Your task to perform on an android device: turn on the 12-hour format for clock Image 0: 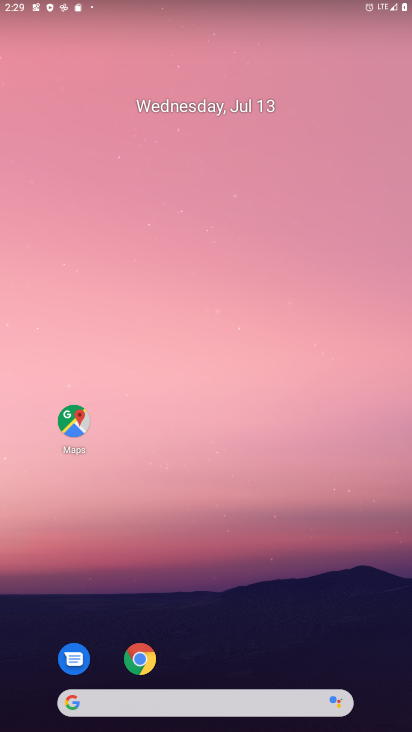
Step 0: drag from (221, 708) to (218, 200)
Your task to perform on an android device: turn on the 12-hour format for clock Image 1: 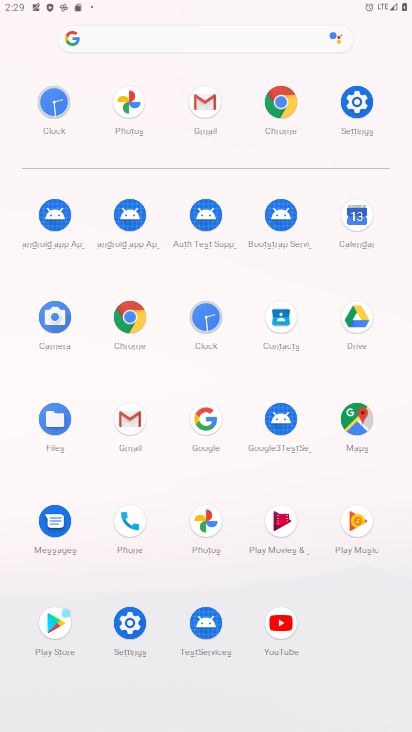
Step 1: click (193, 312)
Your task to perform on an android device: turn on the 12-hour format for clock Image 2: 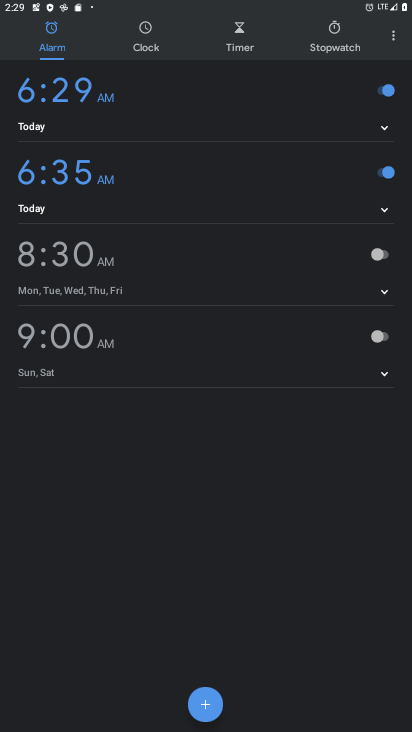
Step 2: click (396, 38)
Your task to perform on an android device: turn on the 12-hour format for clock Image 3: 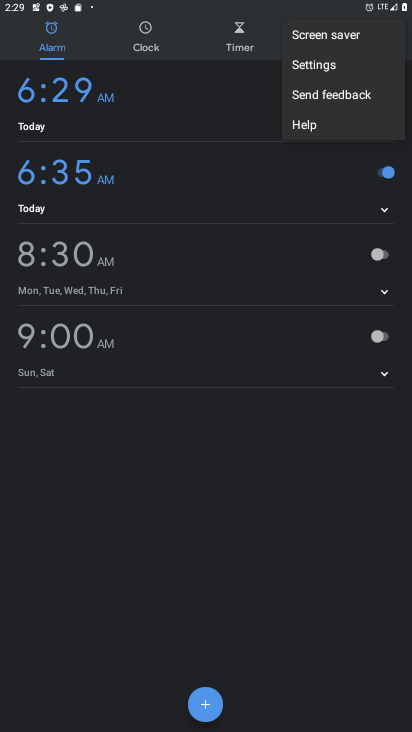
Step 3: click (319, 63)
Your task to perform on an android device: turn on the 12-hour format for clock Image 4: 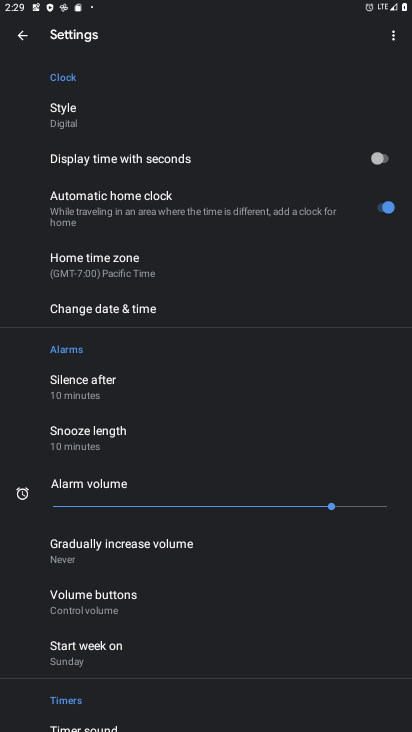
Step 4: click (115, 303)
Your task to perform on an android device: turn on the 12-hour format for clock Image 5: 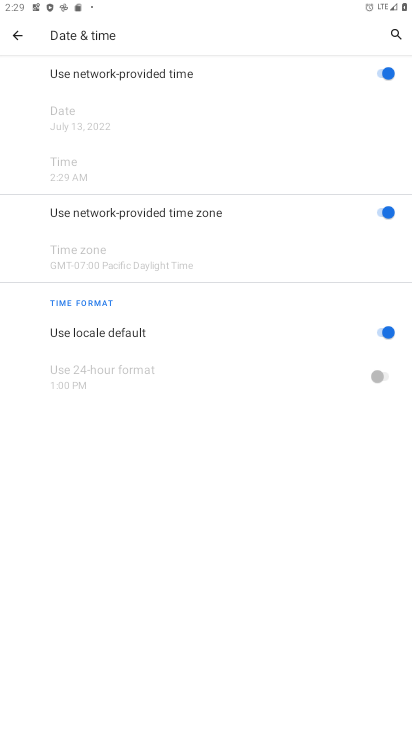
Step 5: task complete